Your task to perform on an android device: turn pop-ups on in chrome Image 0: 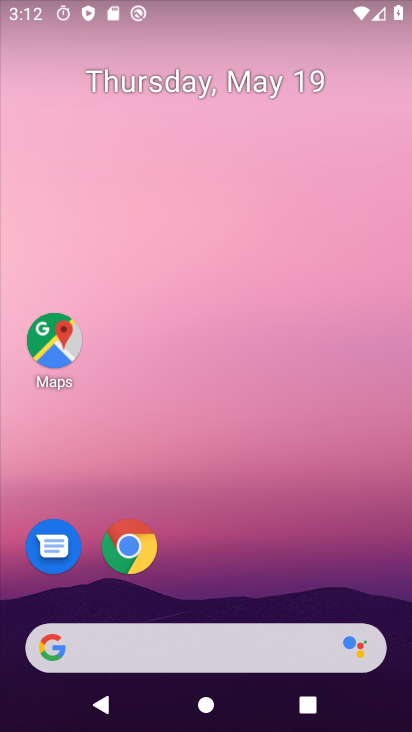
Step 0: click (128, 543)
Your task to perform on an android device: turn pop-ups on in chrome Image 1: 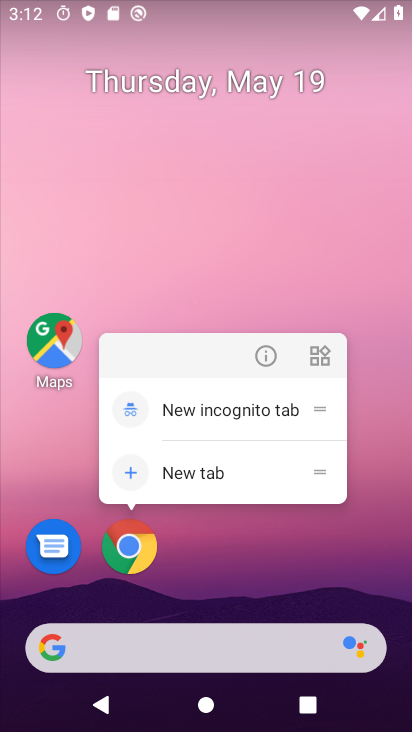
Step 1: click (128, 542)
Your task to perform on an android device: turn pop-ups on in chrome Image 2: 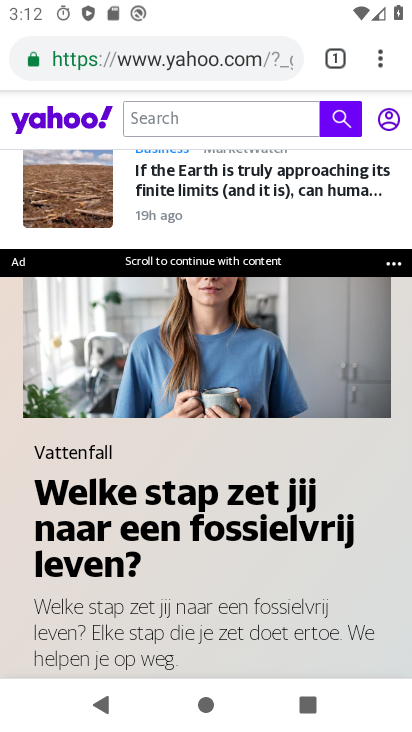
Step 2: click (385, 57)
Your task to perform on an android device: turn pop-ups on in chrome Image 3: 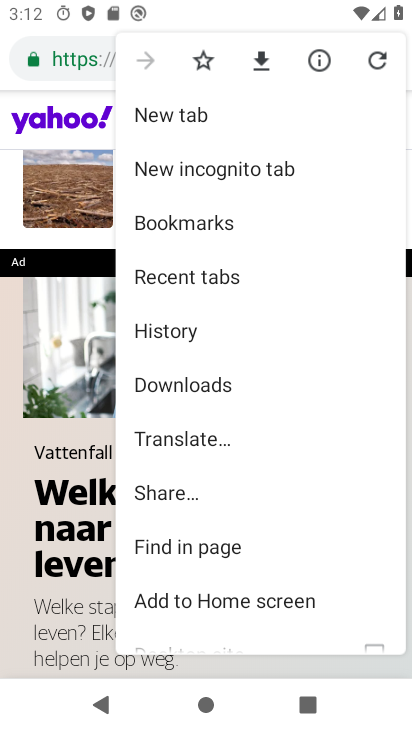
Step 3: drag from (241, 525) to (257, 90)
Your task to perform on an android device: turn pop-ups on in chrome Image 4: 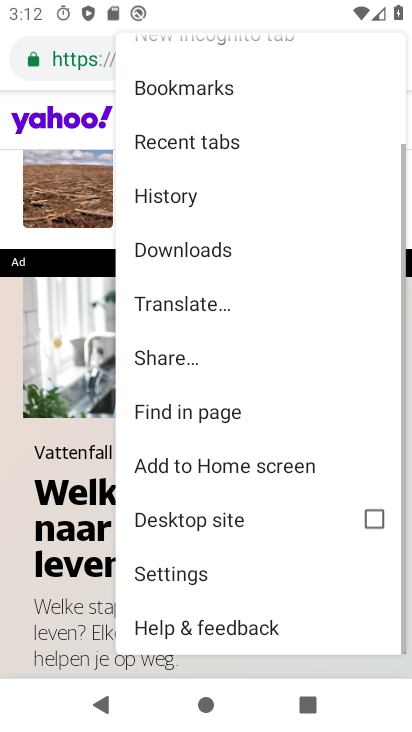
Step 4: click (219, 568)
Your task to perform on an android device: turn pop-ups on in chrome Image 5: 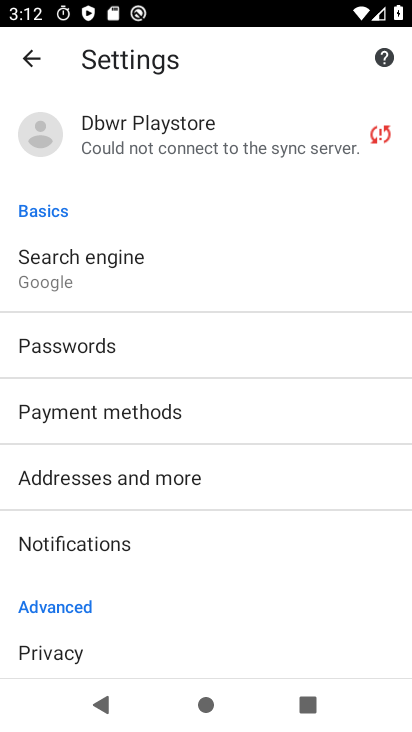
Step 5: drag from (154, 599) to (192, 102)
Your task to perform on an android device: turn pop-ups on in chrome Image 6: 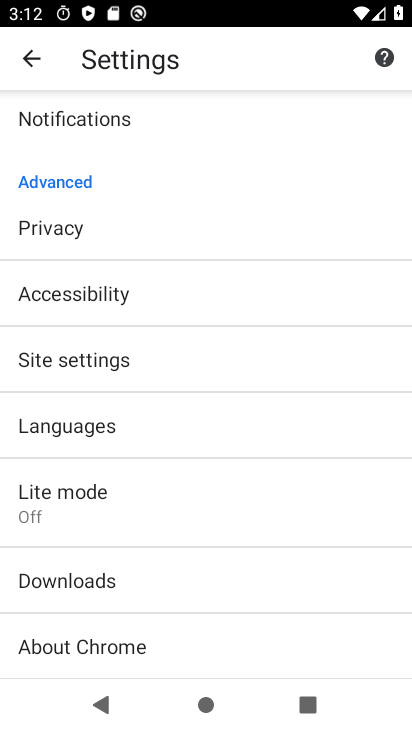
Step 6: click (146, 359)
Your task to perform on an android device: turn pop-ups on in chrome Image 7: 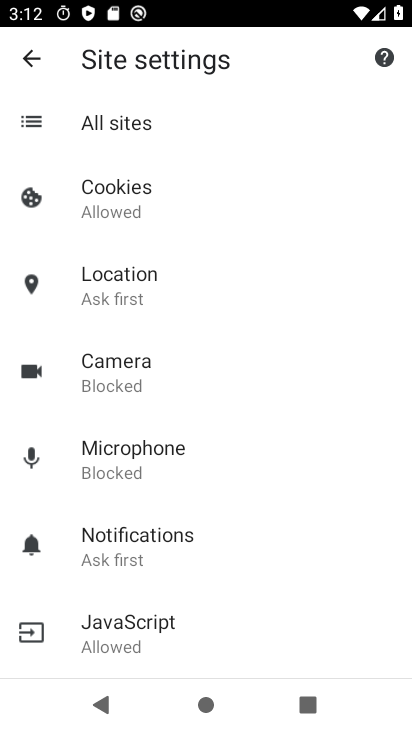
Step 7: drag from (192, 623) to (220, 239)
Your task to perform on an android device: turn pop-ups on in chrome Image 8: 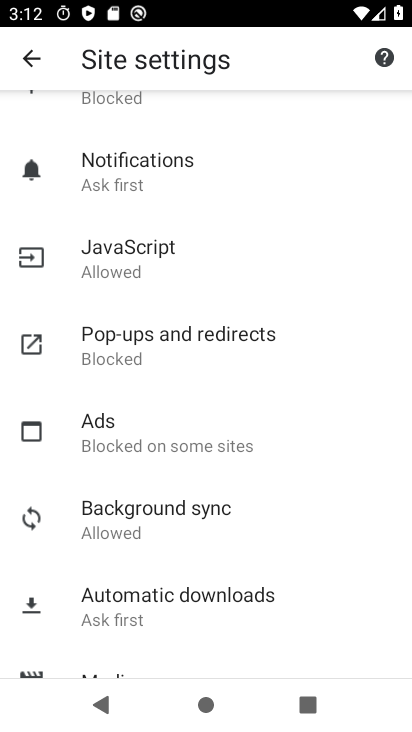
Step 8: click (169, 347)
Your task to perform on an android device: turn pop-ups on in chrome Image 9: 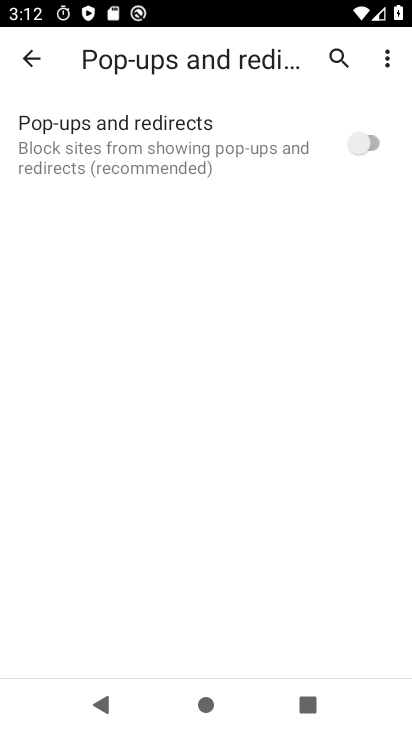
Step 9: click (373, 136)
Your task to perform on an android device: turn pop-ups on in chrome Image 10: 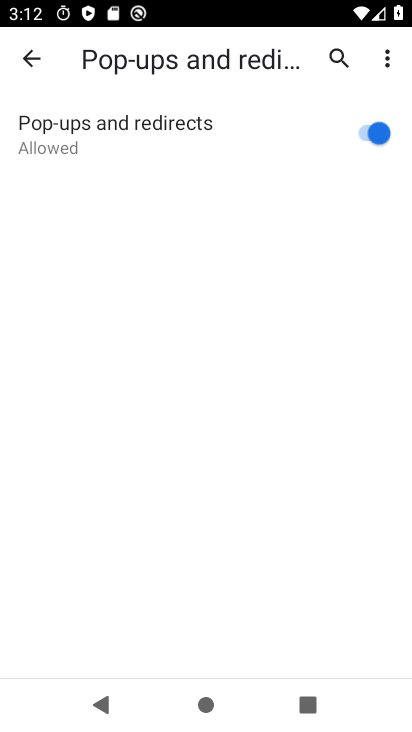
Step 10: task complete